Your task to perform on an android device: open a bookmark in the chrome app Image 0: 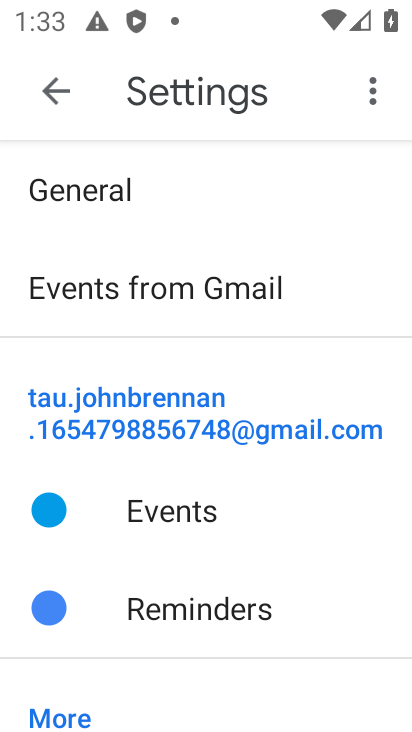
Step 0: press home button
Your task to perform on an android device: open a bookmark in the chrome app Image 1: 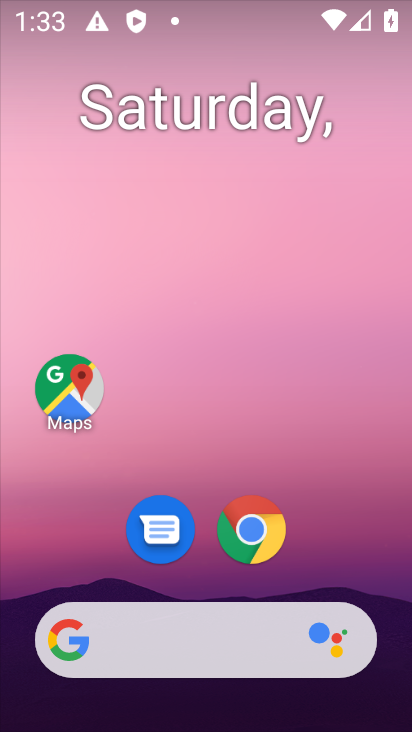
Step 1: click (261, 552)
Your task to perform on an android device: open a bookmark in the chrome app Image 2: 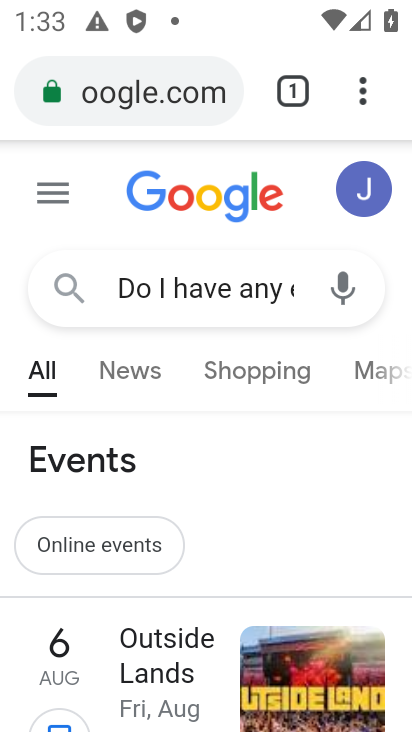
Step 2: click (372, 96)
Your task to perform on an android device: open a bookmark in the chrome app Image 3: 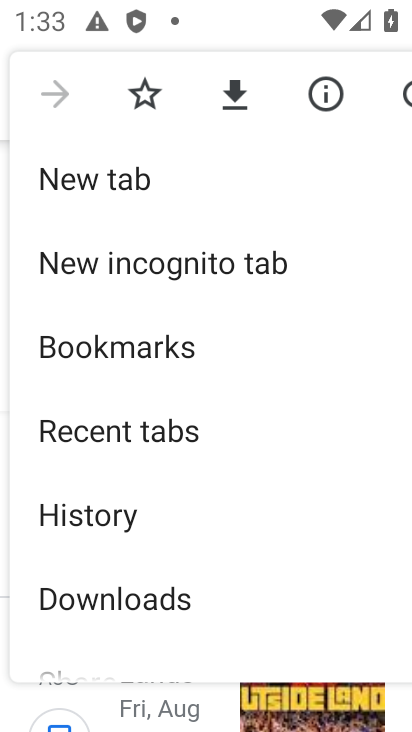
Step 3: click (169, 327)
Your task to perform on an android device: open a bookmark in the chrome app Image 4: 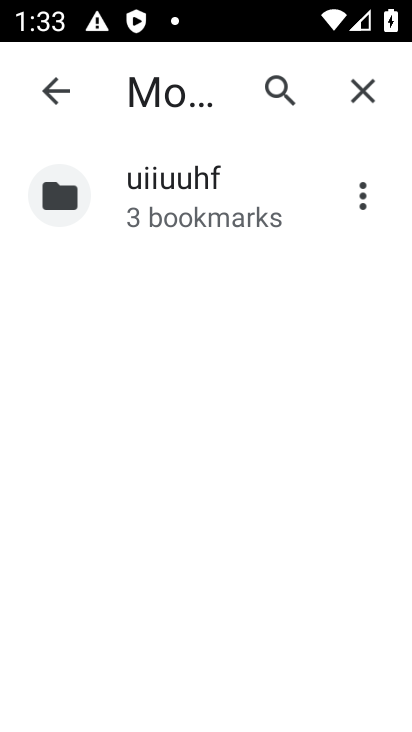
Step 4: click (190, 194)
Your task to perform on an android device: open a bookmark in the chrome app Image 5: 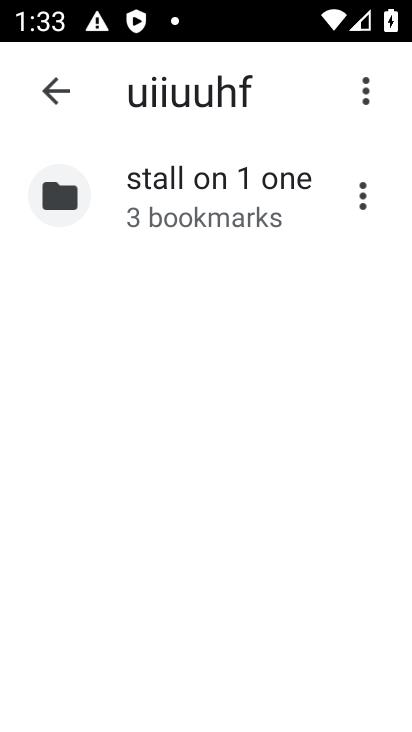
Step 5: click (190, 194)
Your task to perform on an android device: open a bookmark in the chrome app Image 6: 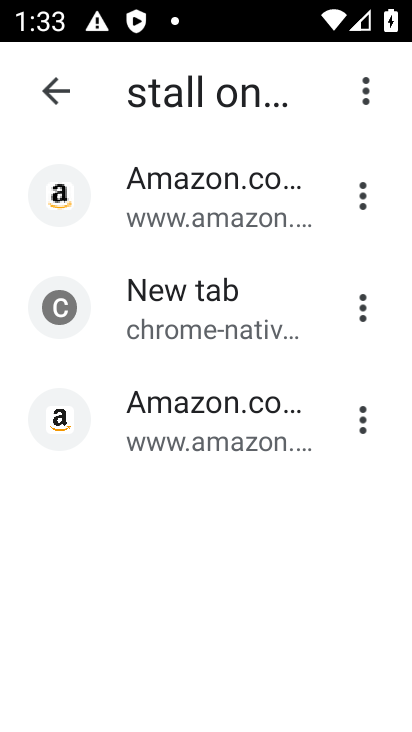
Step 6: click (195, 199)
Your task to perform on an android device: open a bookmark in the chrome app Image 7: 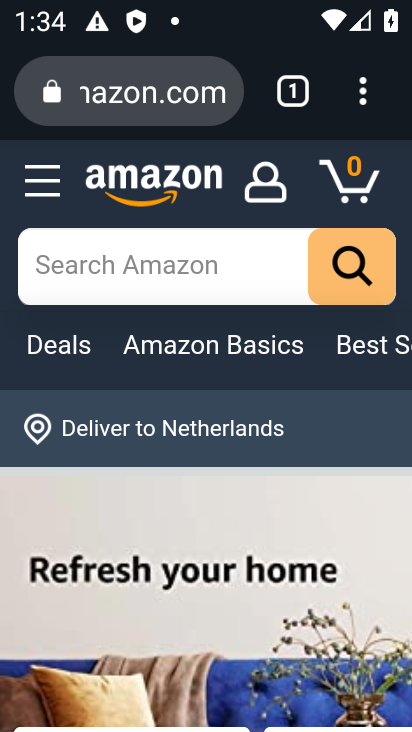
Step 7: task complete